Your task to perform on an android device: change timer sound Image 0: 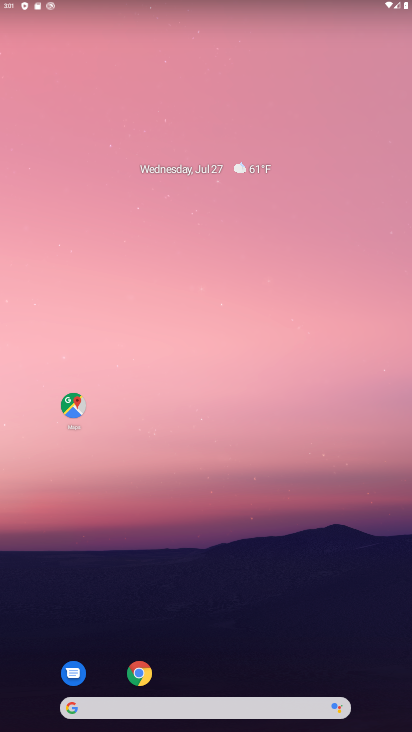
Step 0: drag from (287, 591) to (245, 281)
Your task to perform on an android device: change timer sound Image 1: 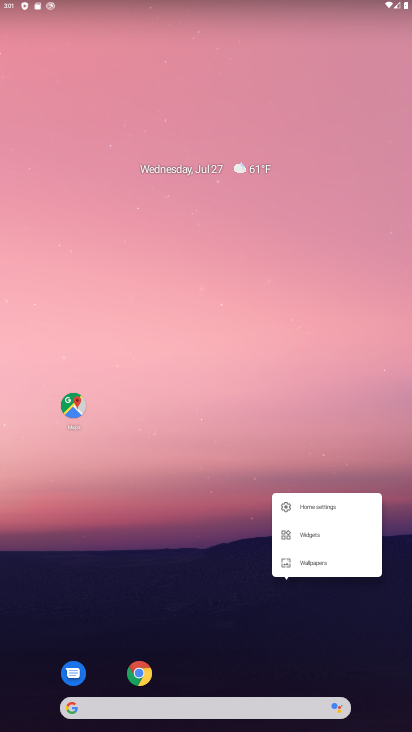
Step 1: drag from (202, 660) to (166, 162)
Your task to perform on an android device: change timer sound Image 2: 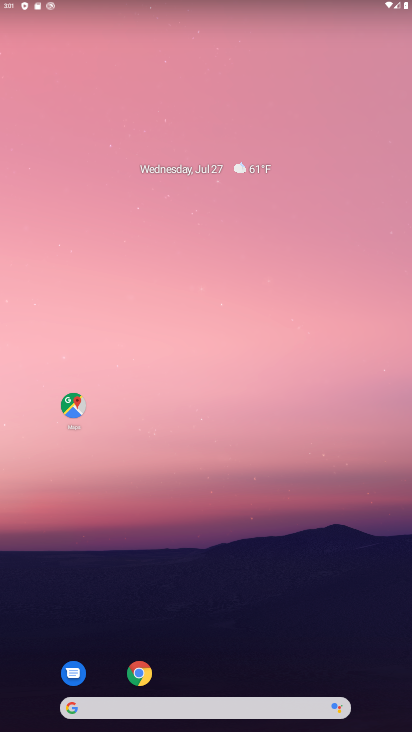
Step 2: drag from (265, 620) to (267, 115)
Your task to perform on an android device: change timer sound Image 3: 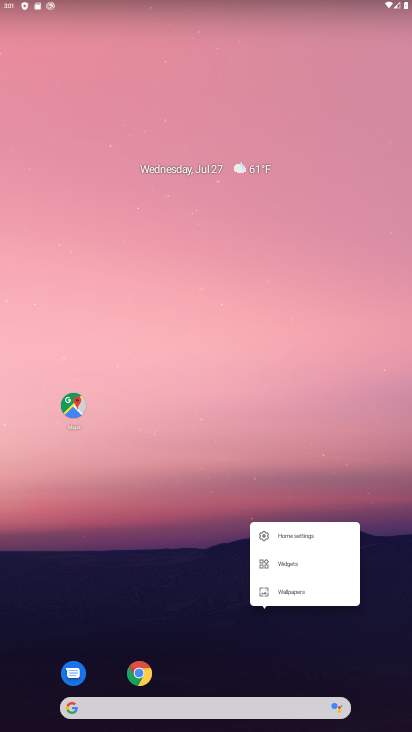
Step 3: drag from (233, 654) to (203, 274)
Your task to perform on an android device: change timer sound Image 4: 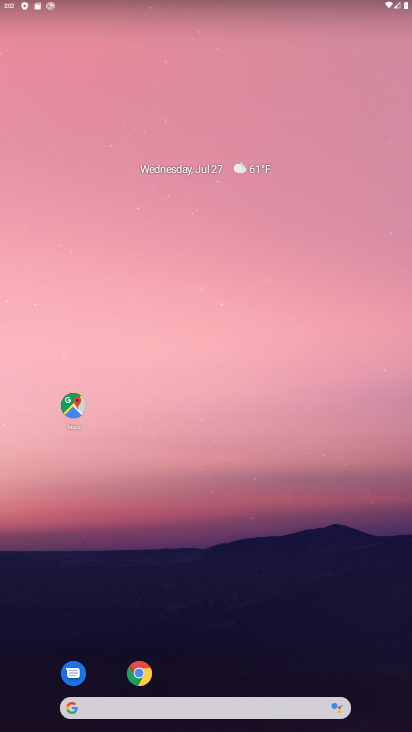
Step 4: drag from (296, 646) to (245, 198)
Your task to perform on an android device: change timer sound Image 5: 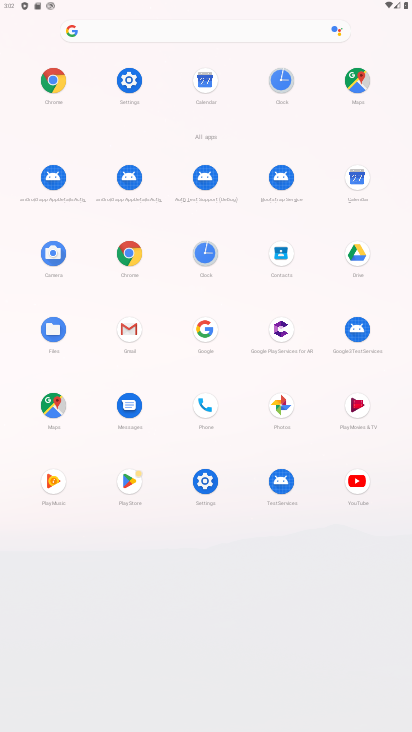
Step 5: click (198, 253)
Your task to perform on an android device: change timer sound Image 6: 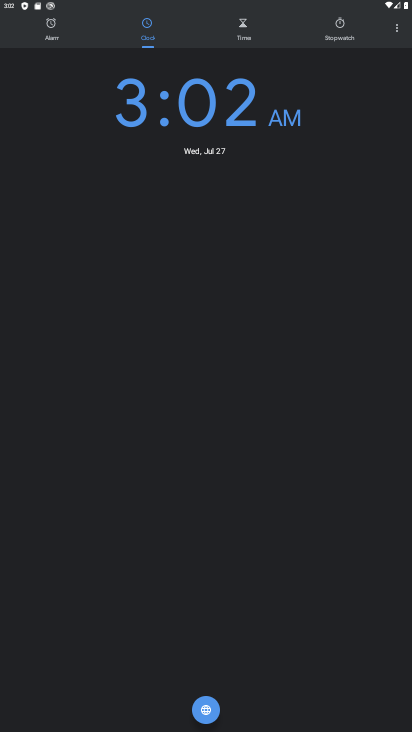
Step 6: click (400, 30)
Your task to perform on an android device: change timer sound Image 7: 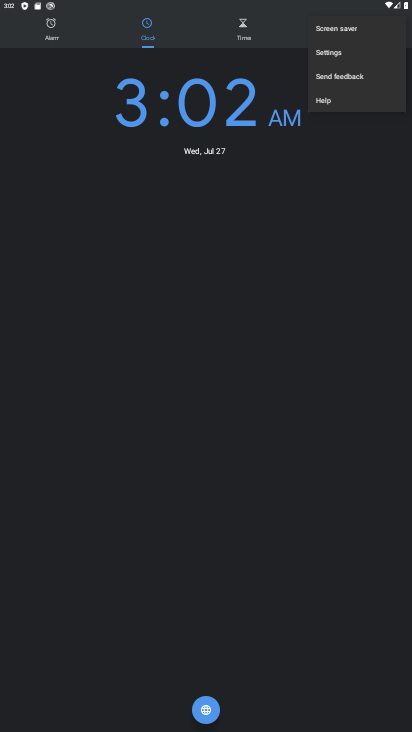
Step 7: click (324, 54)
Your task to perform on an android device: change timer sound Image 8: 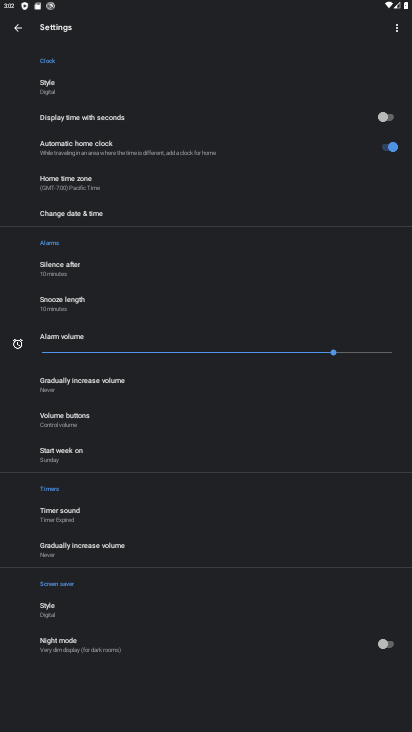
Step 8: click (117, 508)
Your task to perform on an android device: change timer sound Image 9: 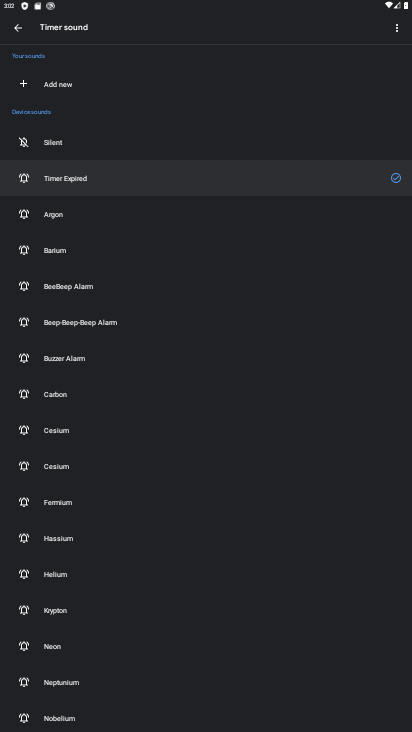
Step 9: click (75, 504)
Your task to perform on an android device: change timer sound Image 10: 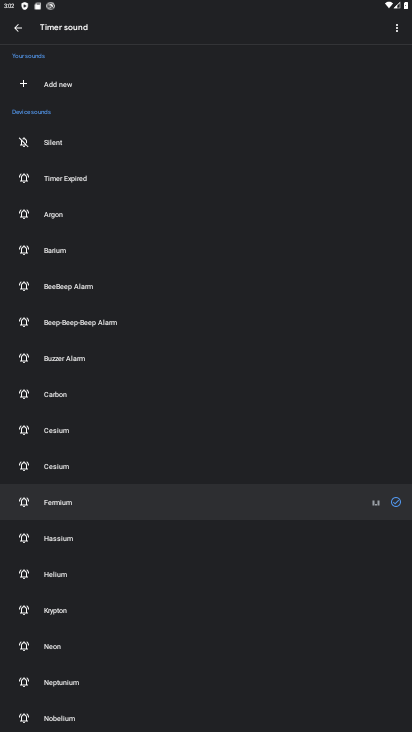
Step 10: task complete